Your task to perform on an android device: Open internet settings Image 0: 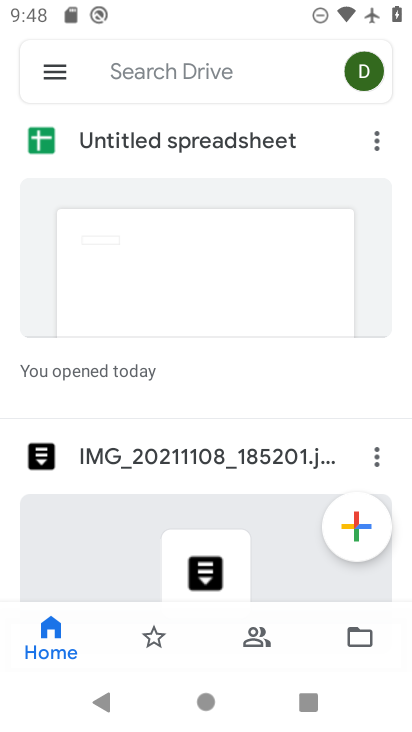
Step 0: press home button
Your task to perform on an android device: Open internet settings Image 1: 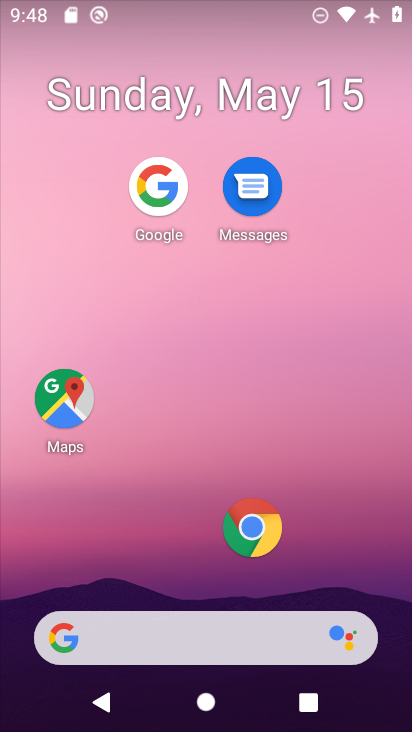
Step 1: drag from (155, 652) to (336, 79)
Your task to perform on an android device: Open internet settings Image 2: 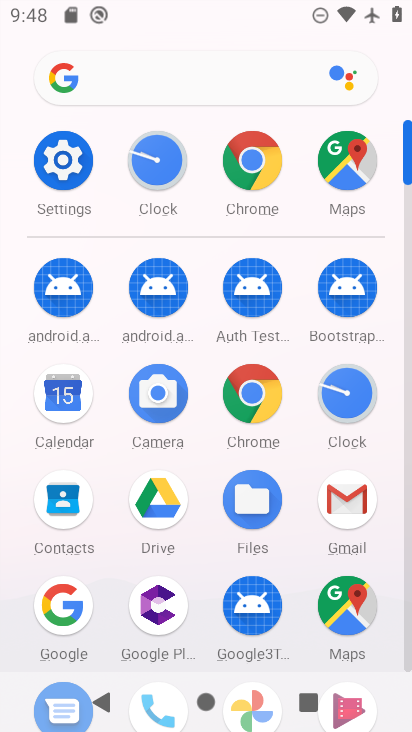
Step 2: click (73, 168)
Your task to perform on an android device: Open internet settings Image 3: 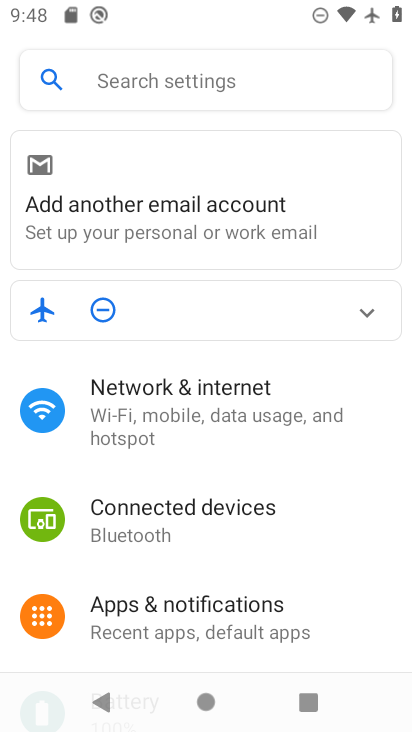
Step 3: click (197, 399)
Your task to perform on an android device: Open internet settings Image 4: 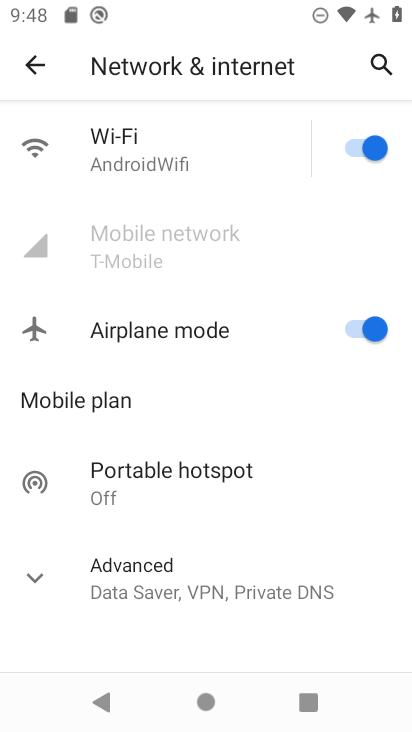
Step 4: click (161, 159)
Your task to perform on an android device: Open internet settings Image 5: 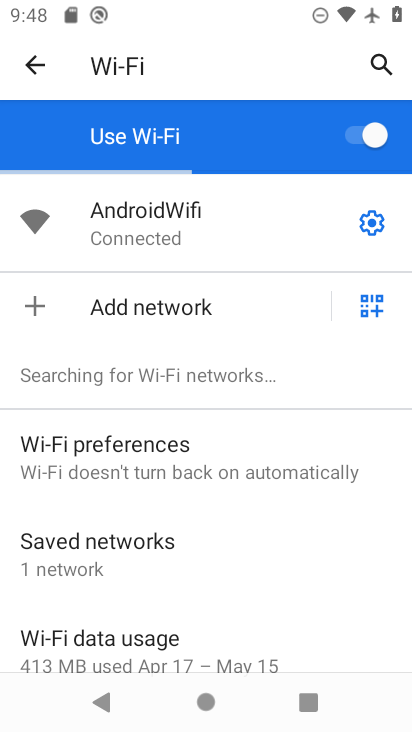
Step 5: task complete